Your task to perform on an android device: Open battery settings Image 0: 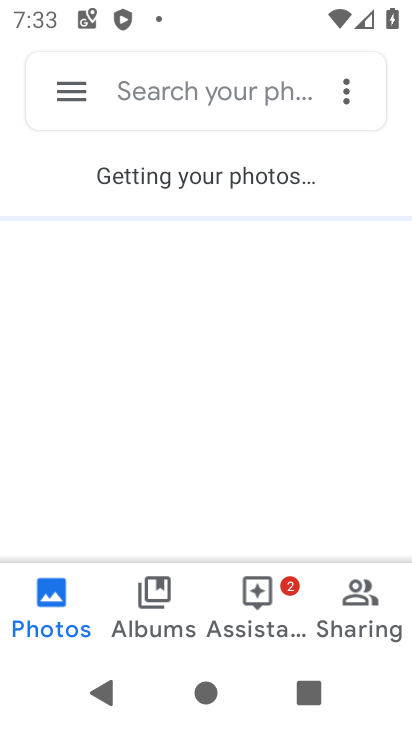
Step 0: press home button
Your task to perform on an android device: Open battery settings Image 1: 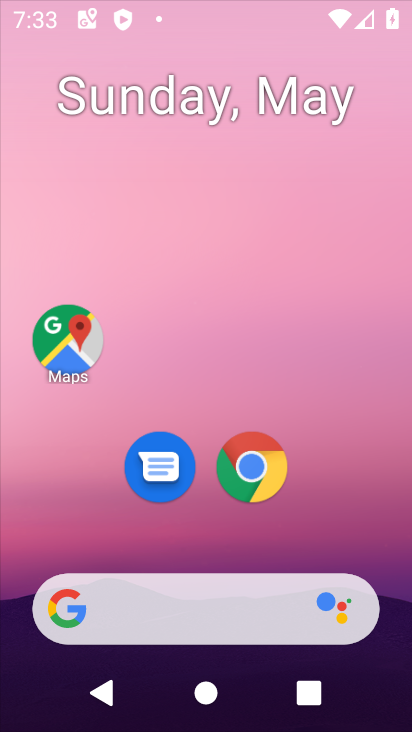
Step 1: drag from (11, 639) to (267, 154)
Your task to perform on an android device: Open battery settings Image 2: 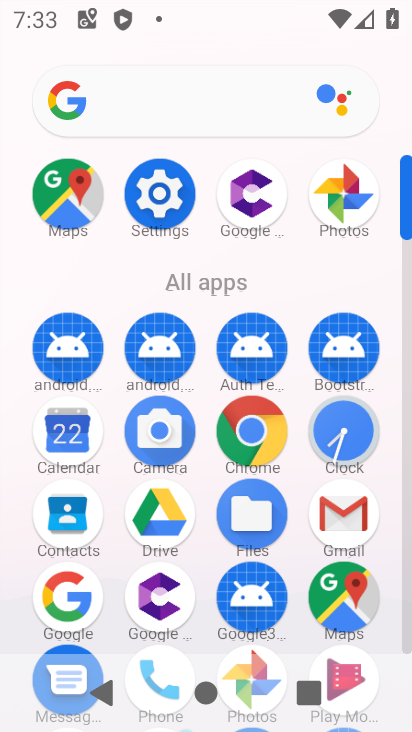
Step 2: click (161, 182)
Your task to perform on an android device: Open battery settings Image 3: 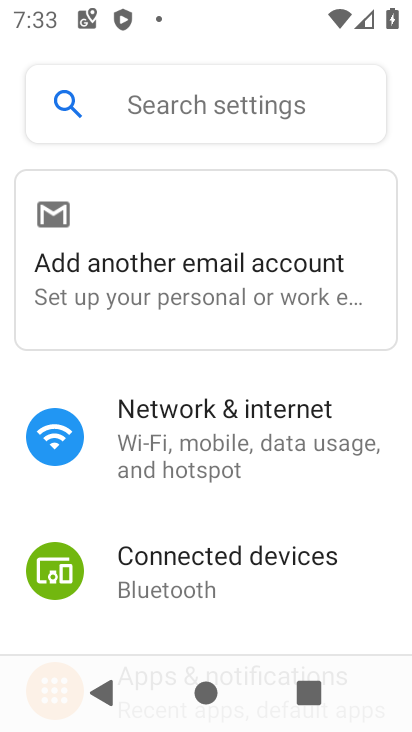
Step 3: drag from (45, 500) to (232, 142)
Your task to perform on an android device: Open battery settings Image 4: 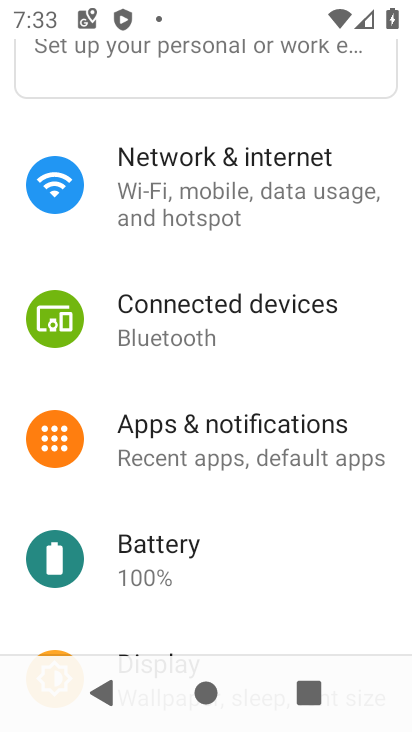
Step 4: click (151, 544)
Your task to perform on an android device: Open battery settings Image 5: 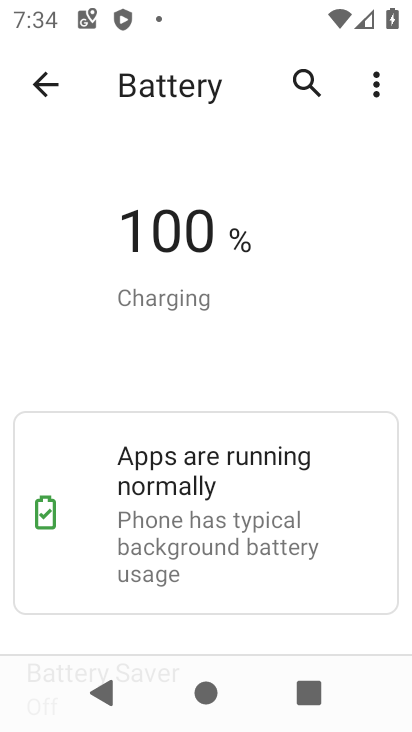
Step 5: task complete